Your task to perform on an android device: turn off wifi Image 0: 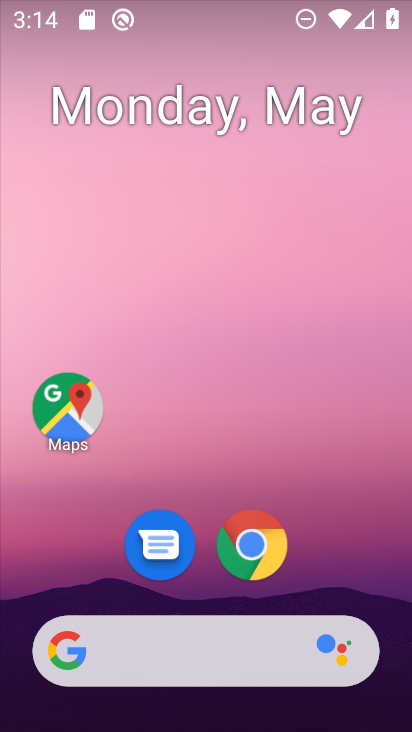
Step 0: drag from (336, 532) to (326, 160)
Your task to perform on an android device: turn off wifi Image 1: 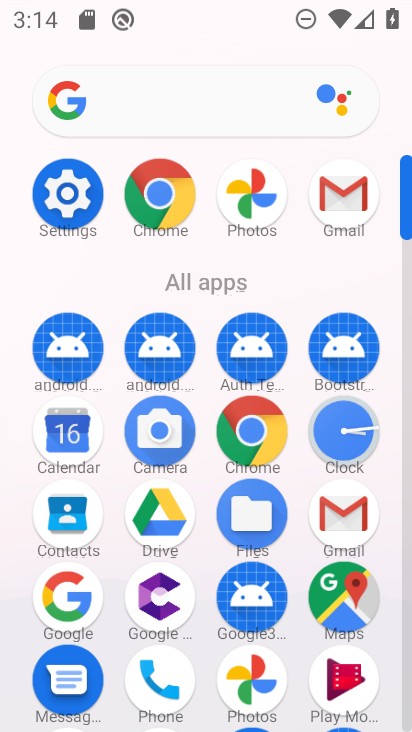
Step 1: click (52, 213)
Your task to perform on an android device: turn off wifi Image 2: 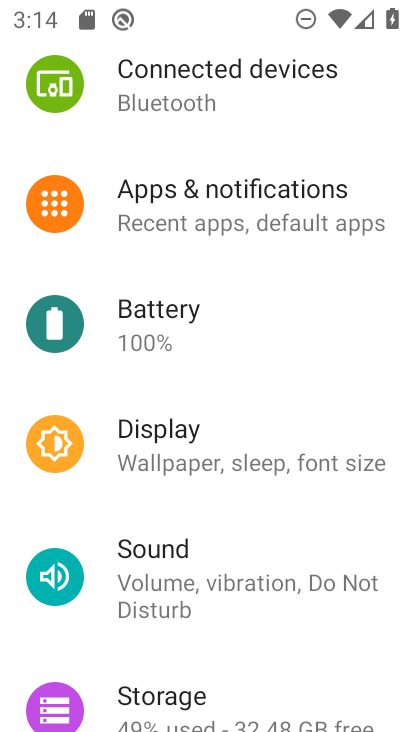
Step 2: drag from (261, 675) to (300, 730)
Your task to perform on an android device: turn off wifi Image 3: 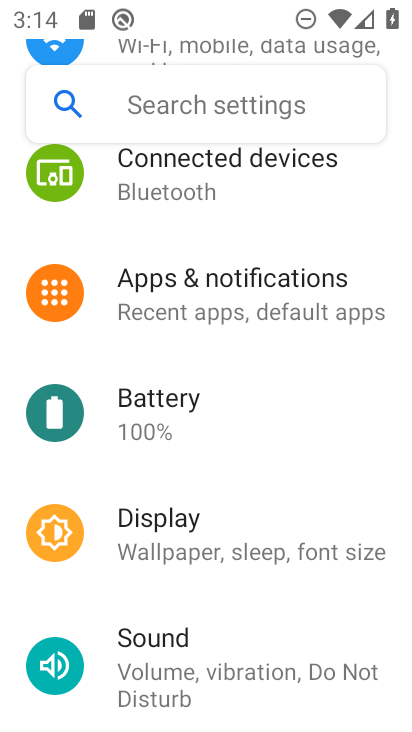
Step 3: drag from (212, 334) to (181, 624)
Your task to perform on an android device: turn off wifi Image 4: 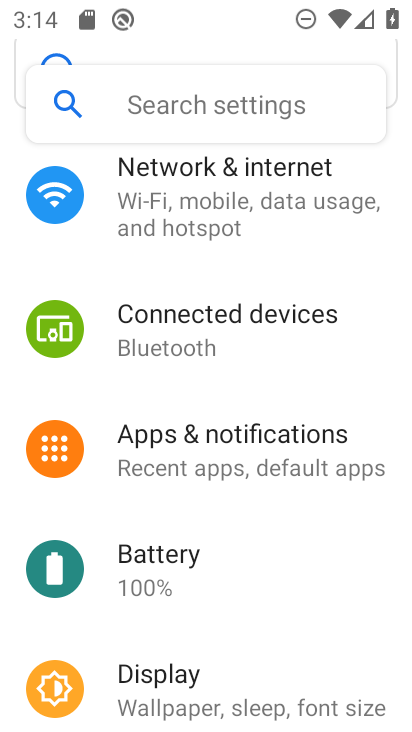
Step 4: click (154, 181)
Your task to perform on an android device: turn off wifi Image 5: 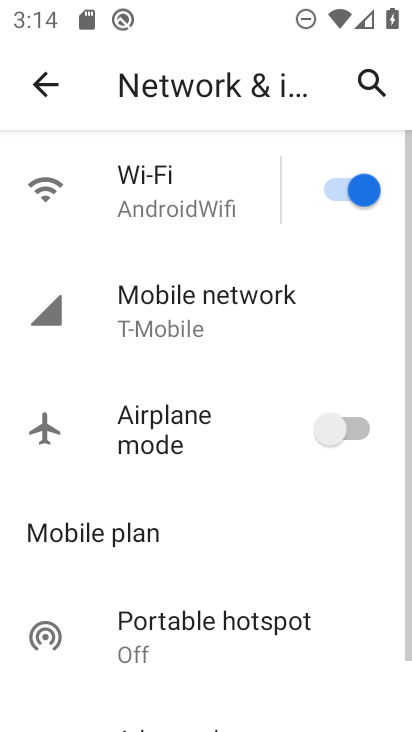
Step 5: click (342, 210)
Your task to perform on an android device: turn off wifi Image 6: 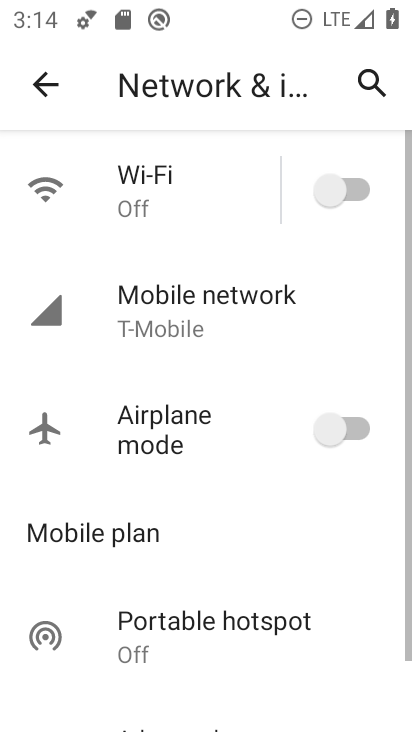
Step 6: task complete